Your task to perform on an android device: Show me recent news Image 0: 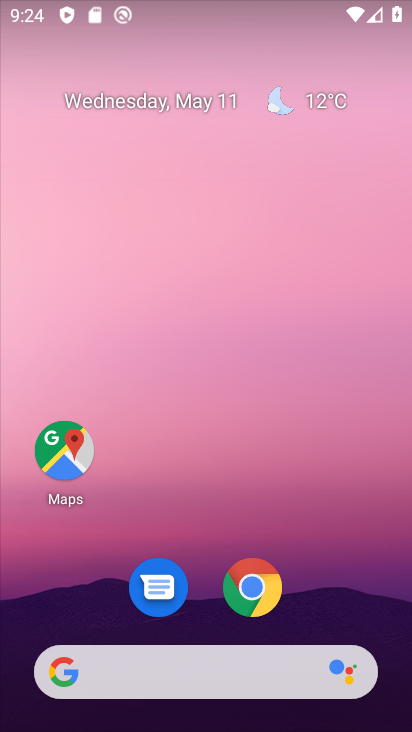
Step 0: click (156, 675)
Your task to perform on an android device: Show me recent news Image 1: 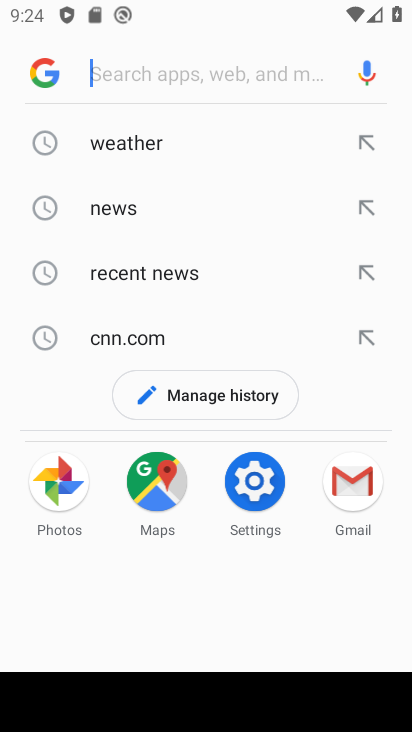
Step 1: click (121, 276)
Your task to perform on an android device: Show me recent news Image 2: 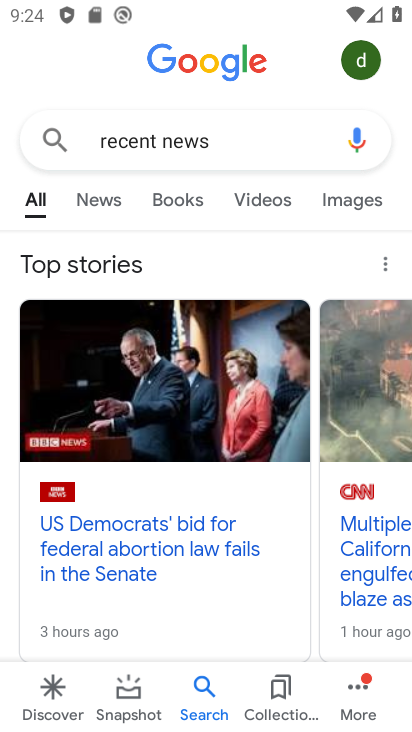
Step 2: click (102, 205)
Your task to perform on an android device: Show me recent news Image 3: 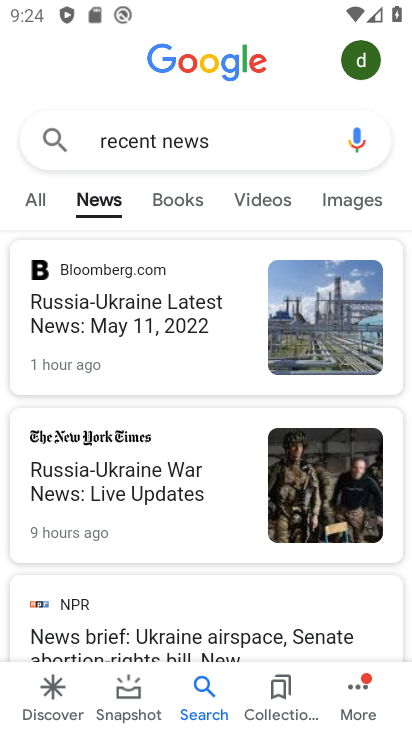
Step 3: click (145, 324)
Your task to perform on an android device: Show me recent news Image 4: 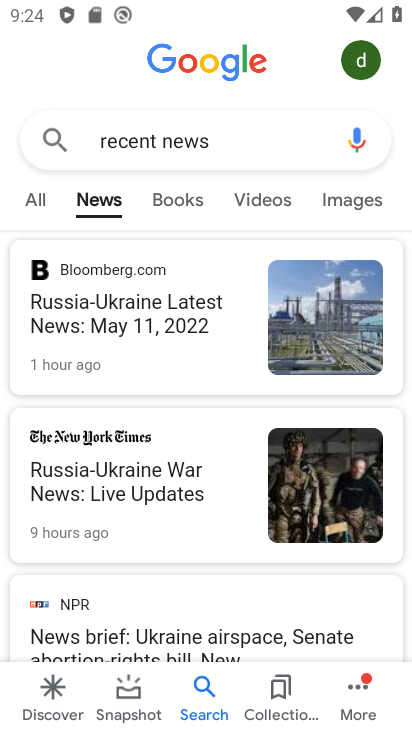
Step 4: click (115, 308)
Your task to perform on an android device: Show me recent news Image 5: 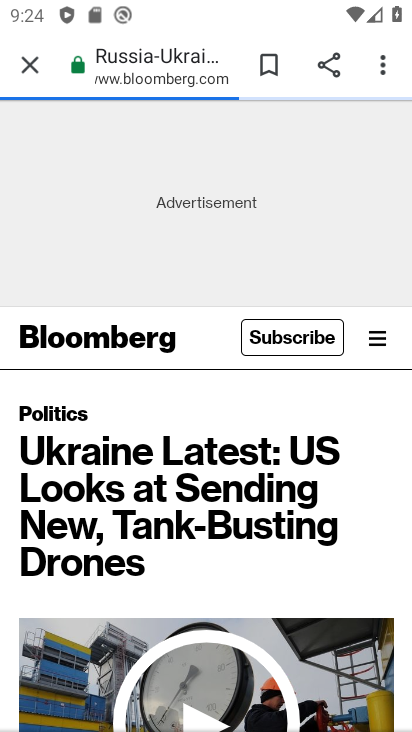
Step 5: drag from (169, 518) to (188, 222)
Your task to perform on an android device: Show me recent news Image 6: 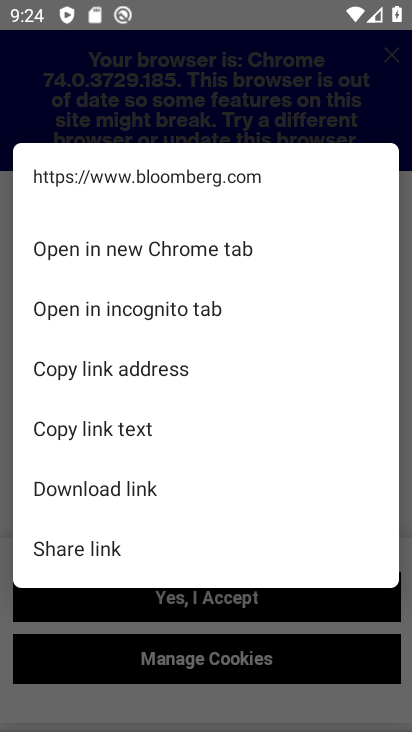
Step 6: click (358, 614)
Your task to perform on an android device: Show me recent news Image 7: 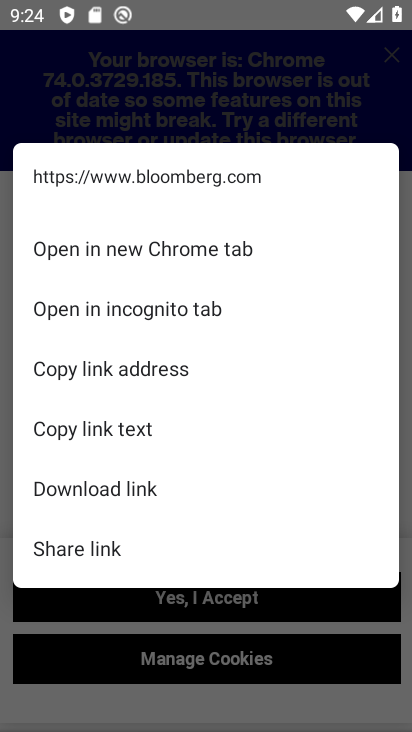
Step 7: click (373, 131)
Your task to perform on an android device: Show me recent news Image 8: 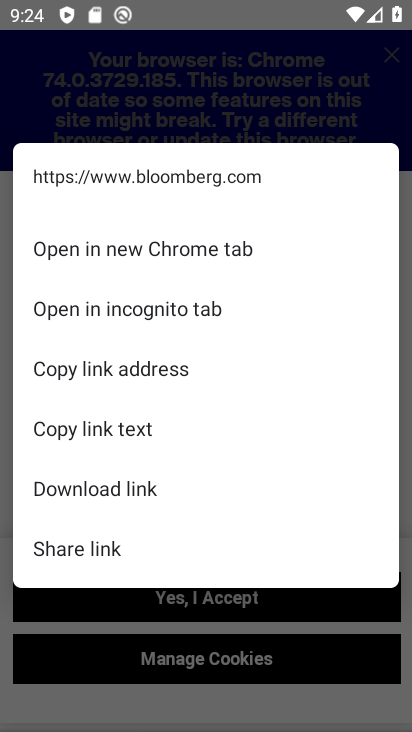
Step 8: click (405, 107)
Your task to perform on an android device: Show me recent news Image 9: 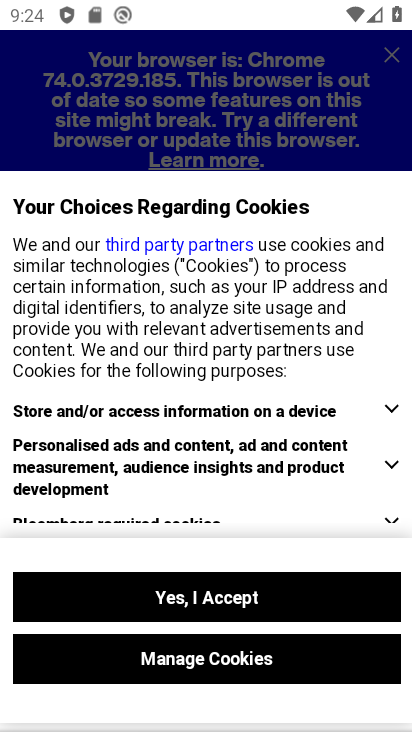
Step 9: click (393, 618)
Your task to perform on an android device: Show me recent news Image 10: 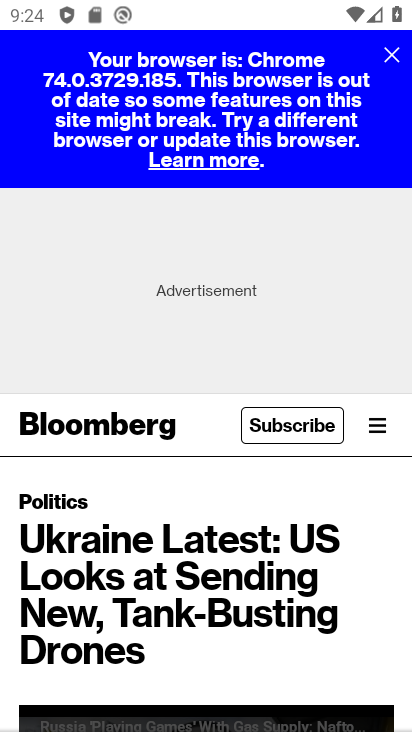
Step 10: task complete